Your task to perform on an android device: turn off translation in the chrome app Image 0: 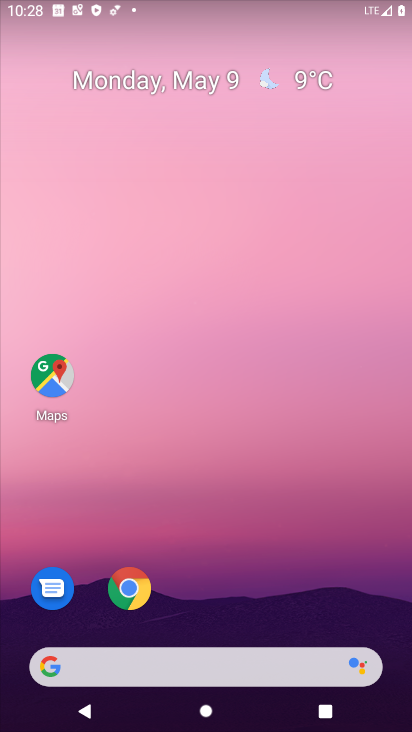
Step 0: press home button
Your task to perform on an android device: turn off translation in the chrome app Image 1: 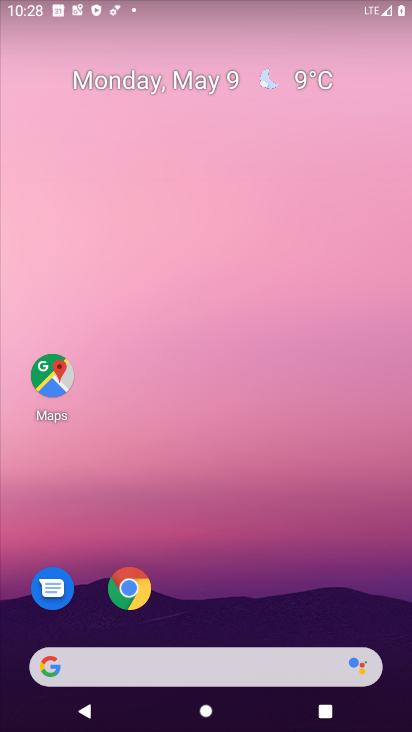
Step 1: drag from (181, 642) to (302, 122)
Your task to perform on an android device: turn off translation in the chrome app Image 2: 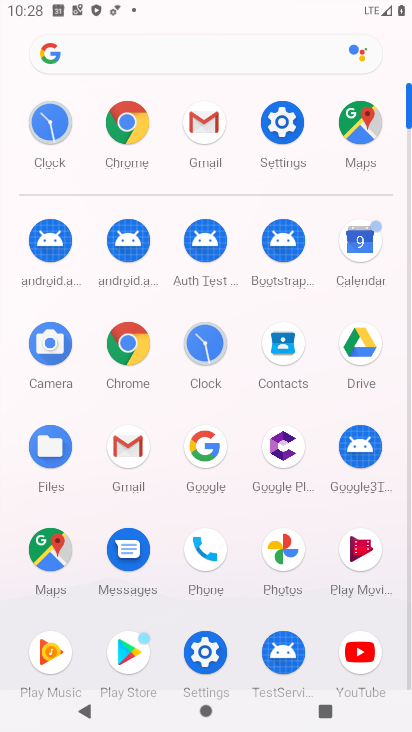
Step 2: click (131, 128)
Your task to perform on an android device: turn off translation in the chrome app Image 3: 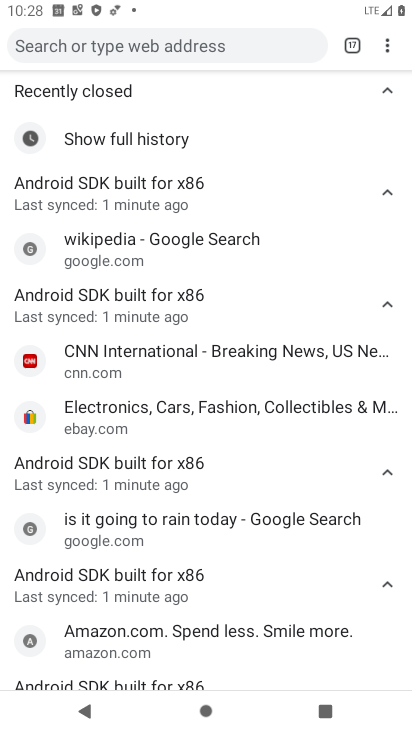
Step 3: drag from (389, 50) to (288, 389)
Your task to perform on an android device: turn off translation in the chrome app Image 4: 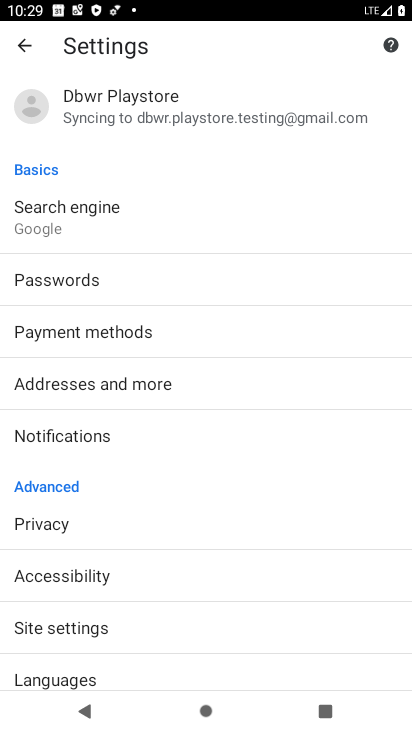
Step 4: drag from (156, 589) to (320, 202)
Your task to perform on an android device: turn off translation in the chrome app Image 5: 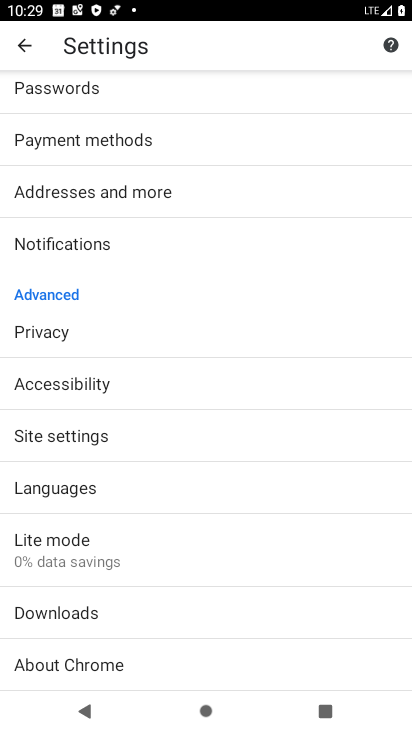
Step 5: click (81, 492)
Your task to perform on an android device: turn off translation in the chrome app Image 6: 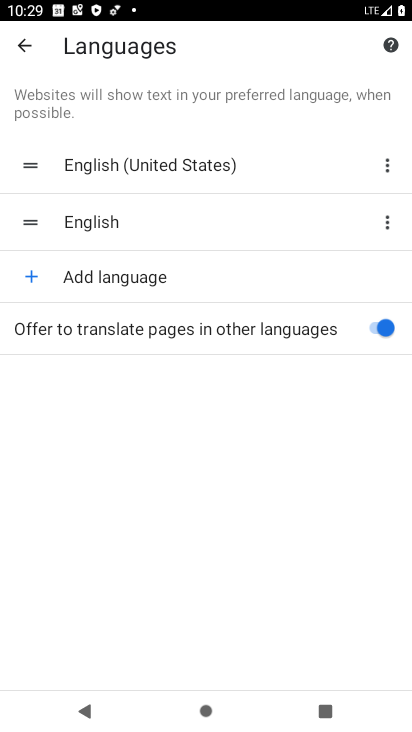
Step 6: click (376, 329)
Your task to perform on an android device: turn off translation in the chrome app Image 7: 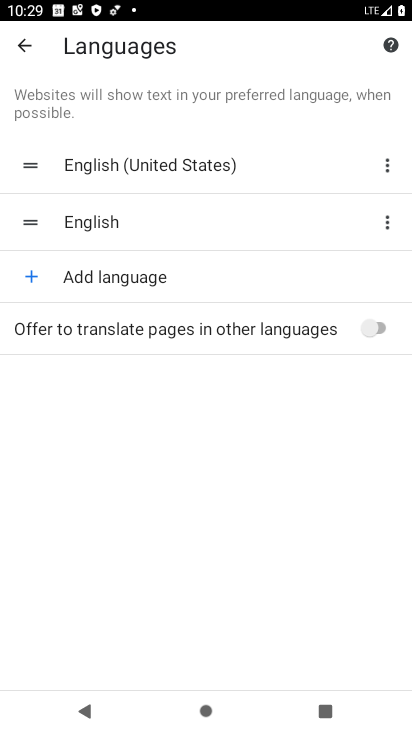
Step 7: task complete